Your task to perform on an android device: turn off priority inbox in the gmail app Image 0: 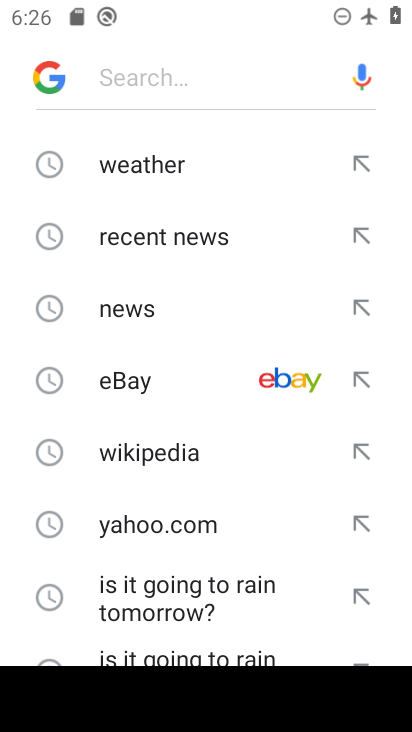
Step 0: press home button
Your task to perform on an android device: turn off priority inbox in the gmail app Image 1: 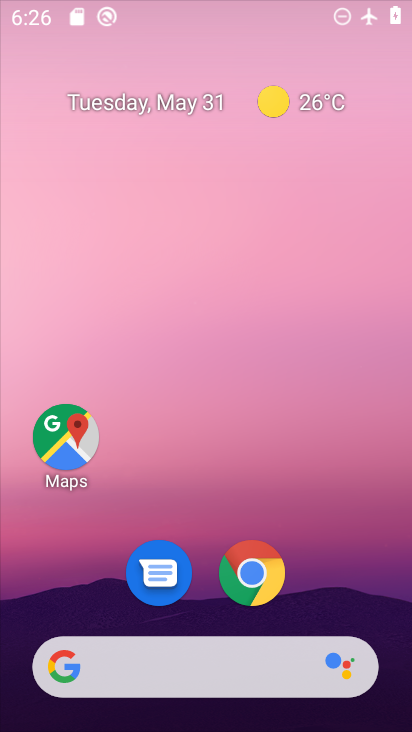
Step 1: drag from (398, 643) to (265, 27)
Your task to perform on an android device: turn off priority inbox in the gmail app Image 2: 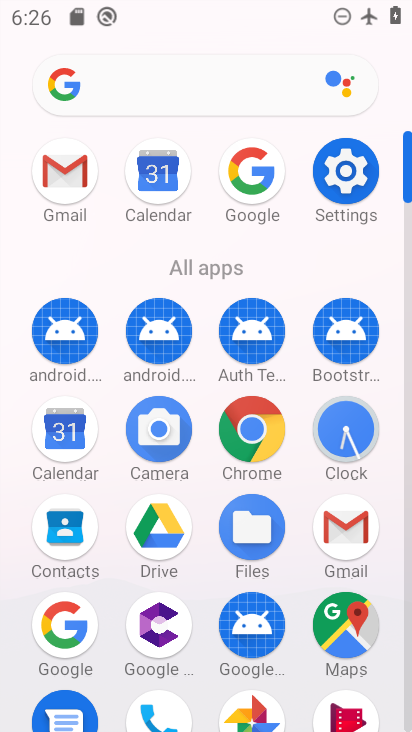
Step 2: click (53, 181)
Your task to perform on an android device: turn off priority inbox in the gmail app Image 3: 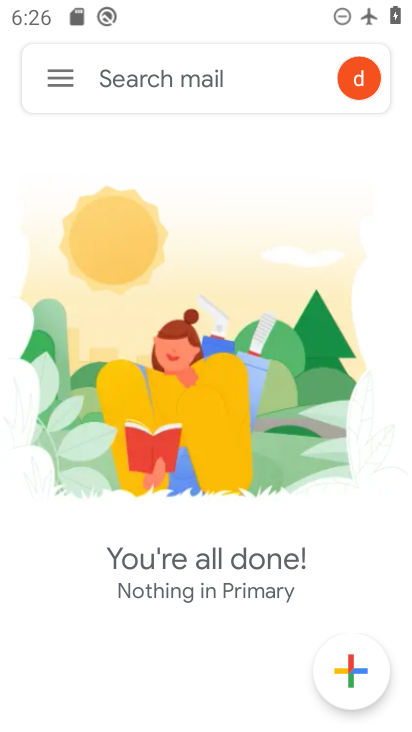
Step 3: click (65, 75)
Your task to perform on an android device: turn off priority inbox in the gmail app Image 4: 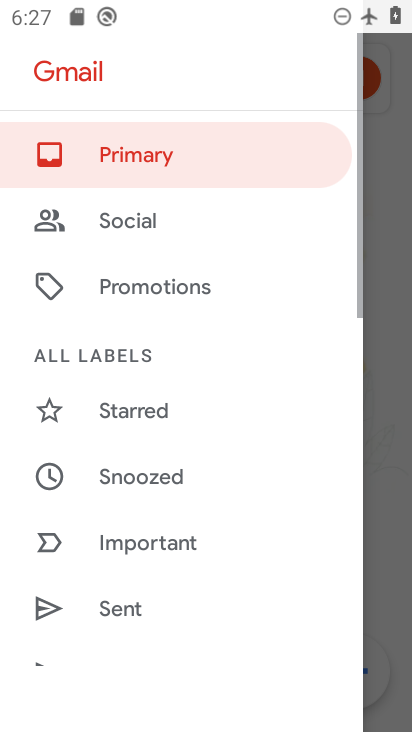
Step 4: drag from (108, 602) to (209, 12)
Your task to perform on an android device: turn off priority inbox in the gmail app Image 5: 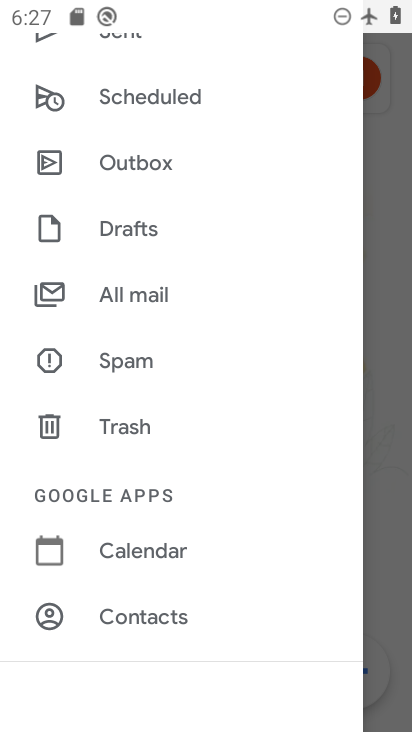
Step 5: drag from (204, 416) to (214, 20)
Your task to perform on an android device: turn off priority inbox in the gmail app Image 6: 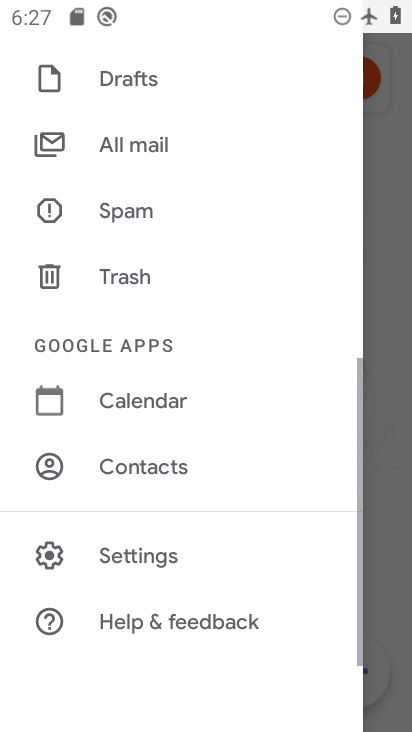
Step 6: click (211, 566)
Your task to perform on an android device: turn off priority inbox in the gmail app Image 7: 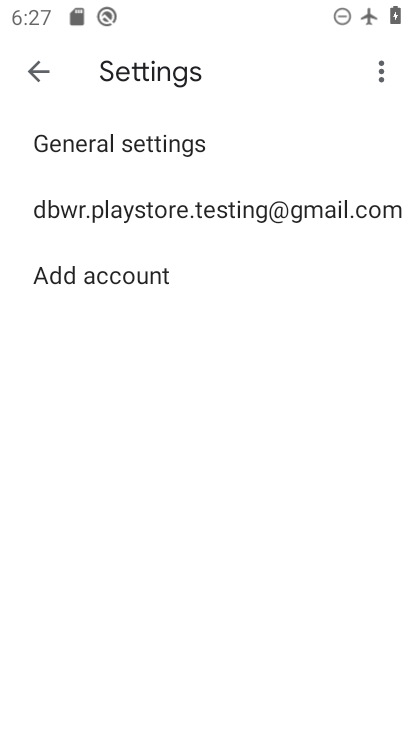
Step 7: click (188, 209)
Your task to perform on an android device: turn off priority inbox in the gmail app Image 8: 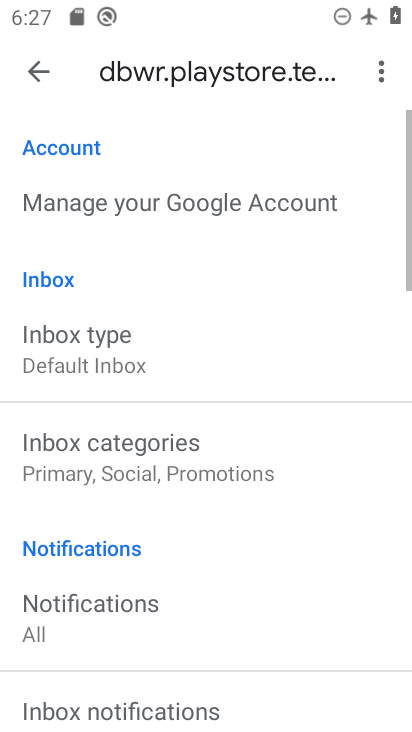
Step 8: click (176, 363)
Your task to perform on an android device: turn off priority inbox in the gmail app Image 9: 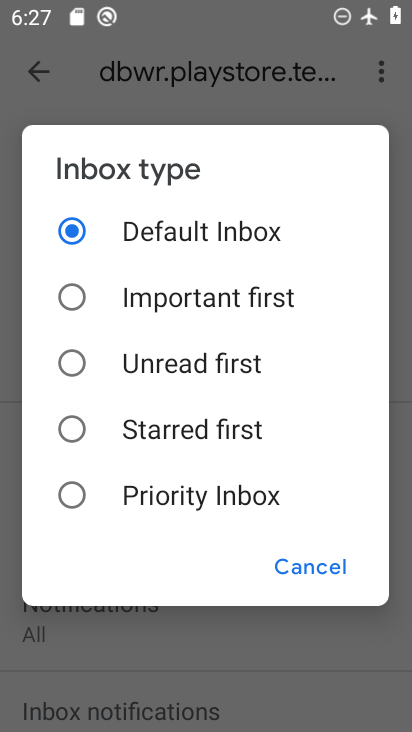
Step 9: task complete